Your task to perform on an android device: Set the phone to "Do not disturb". Image 0: 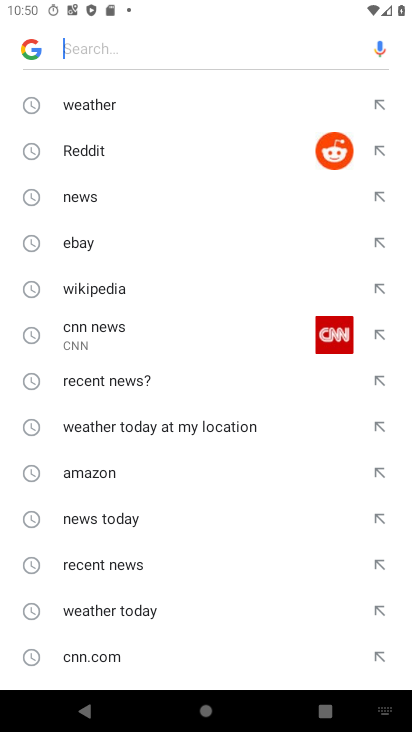
Step 0: drag from (165, 6) to (227, 440)
Your task to perform on an android device: Set the phone to "Do not disturb". Image 1: 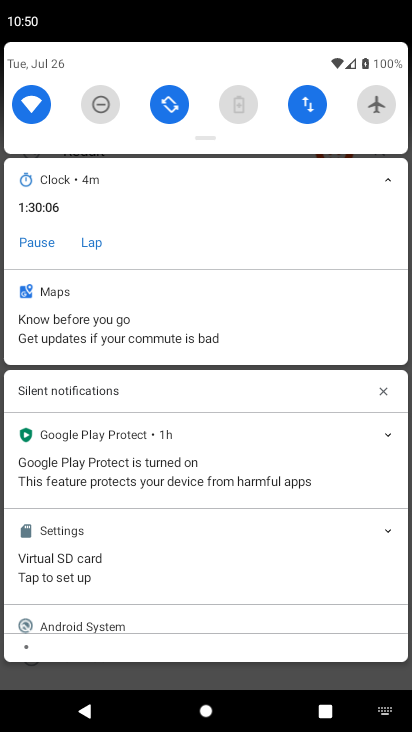
Step 1: click (104, 102)
Your task to perform on an android device: Set the phone to "Do not disturb". Image 2: 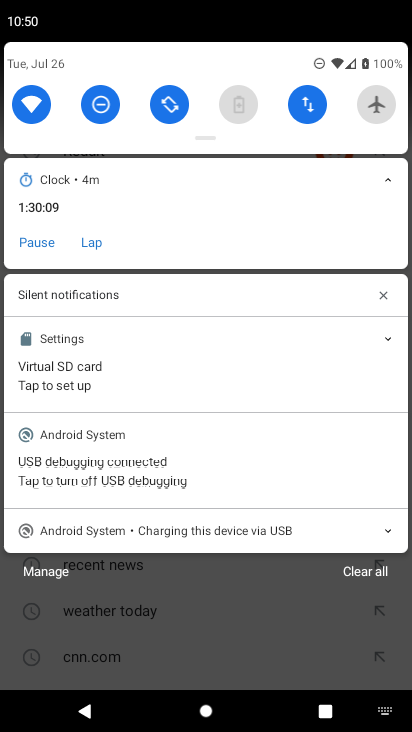
Step 2: task complete